Your task to perform on an android device: turn on translation in the chrome app Image 0: 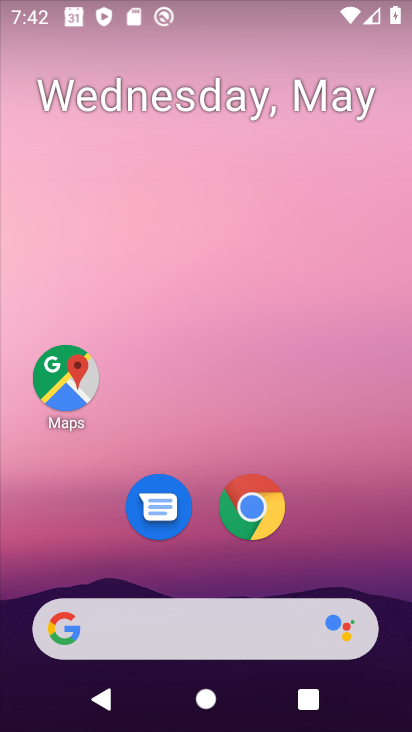
Step 0: click (316, 578)
Your task to perform on an android device: turn on translation in the chrome app Image 1: 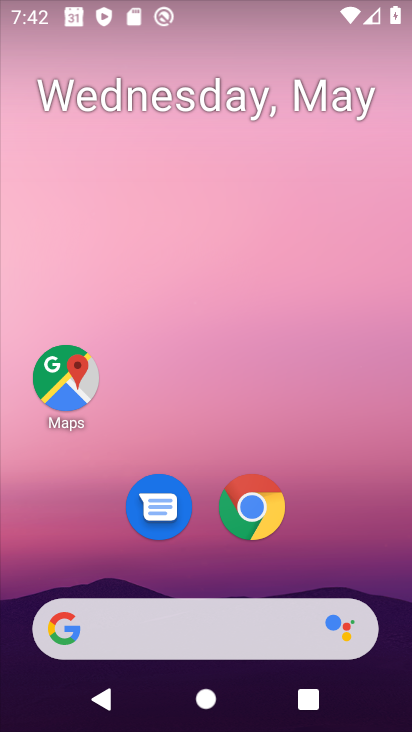
Step 1: drag from (319, 470) to (317, 392)
Your task to perform on an android device: turn on translation in the chrome app Image 2: 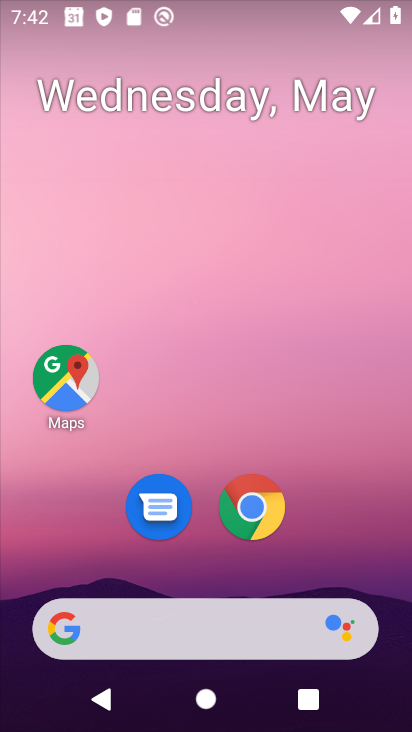
Step 2: click (251, 504)
Your task to perform on an android device: turn on translation in the chrome app Image 3: 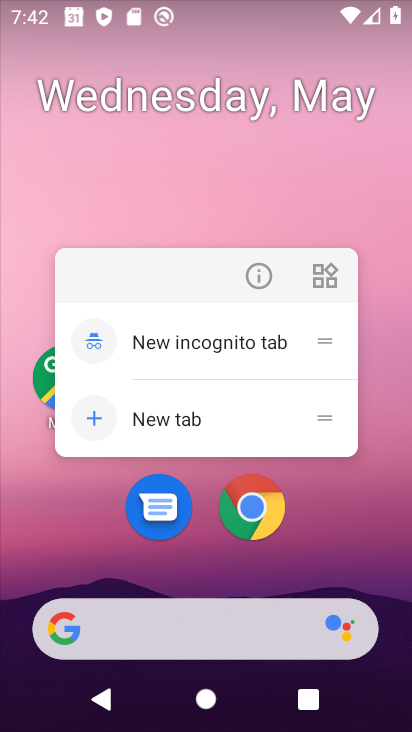
Step 3: click (246, 503)
Your task to perform on an android device: turn on translation in the chrome app Image 4: 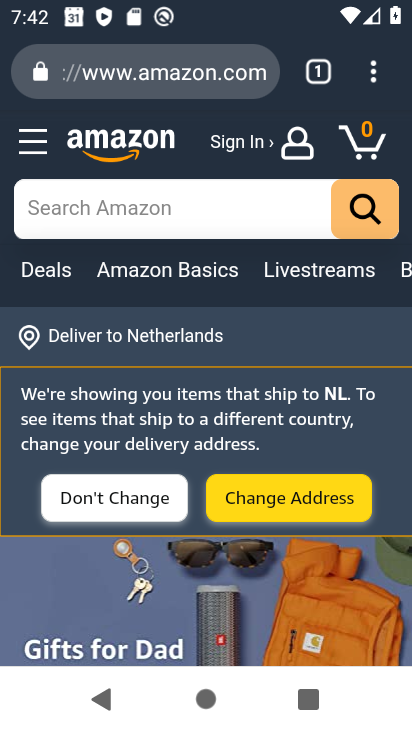
Step 4: click (376, 57)
Your task to perform on an android device: turn on translation in the chrome app Image 5: 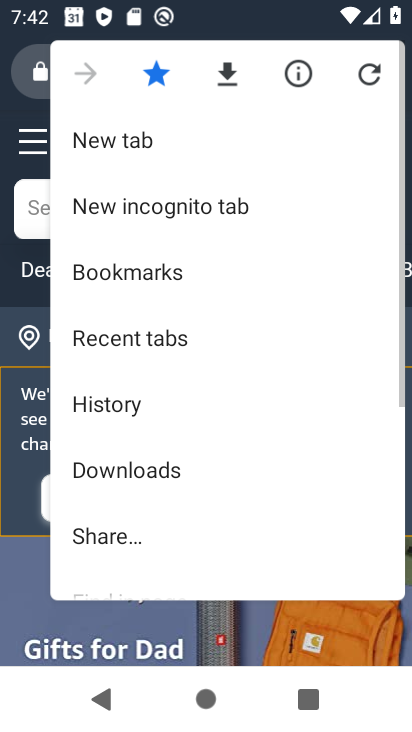
Step 5: drag from (193, 497) to (234, 210)
Your task to perform on an android device: turn on translation in the chrome app Image 6: 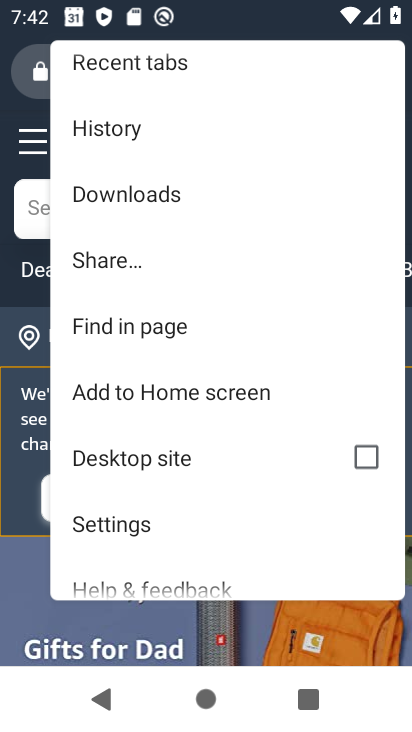
Step 6: click (133, 532)
Your task to perform on an android device: turn on translation in the chrome app Image 7: 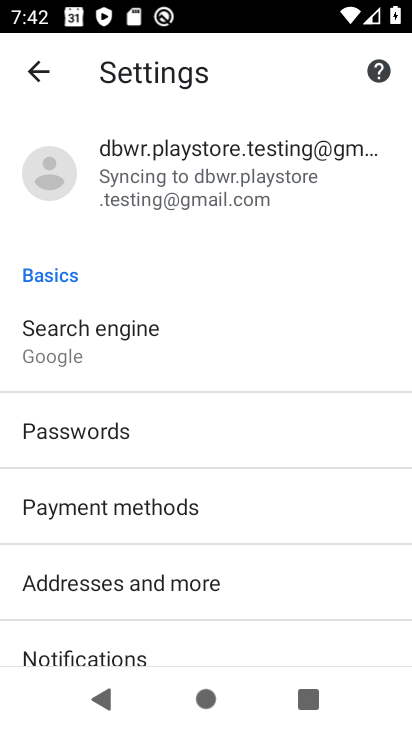
Step 7: drag from (202, 585) to (251, 261)
Your task to perform on an android device: turn on translation in the chrome app Image 8: 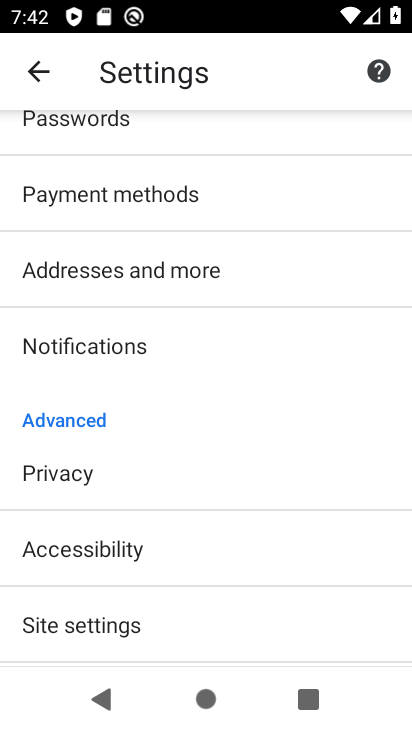
Step 8: drag from (210, 554) to (241, 227)
Your task to perform on an android device: turn on translation in the chrome app Image 9: 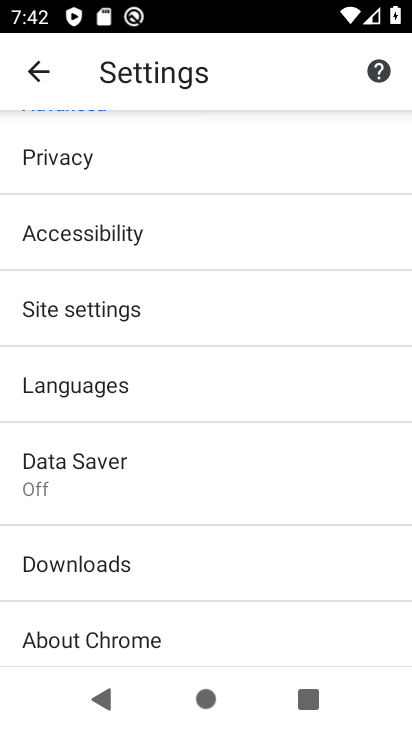
Step 9: drag from (117, 564) to (115, 496)
Your task to perform on an android device: turn on translation in the chrome app Image 10: 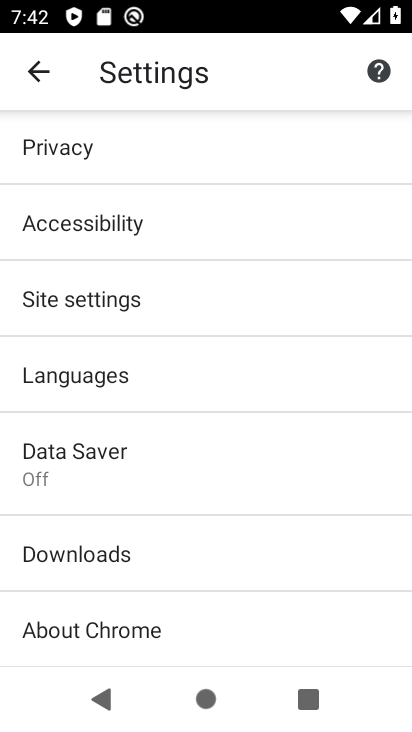
Step 10: click (101, 367)
Your task to perform on an android device: turn on translation in the chrome app Image 11: 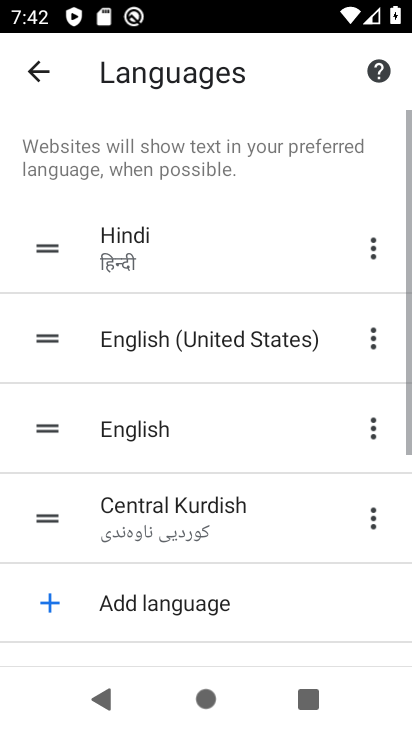
Step 11: task complete